Your task to perform on an android device: Show me the alarms in the clock app Image 0: 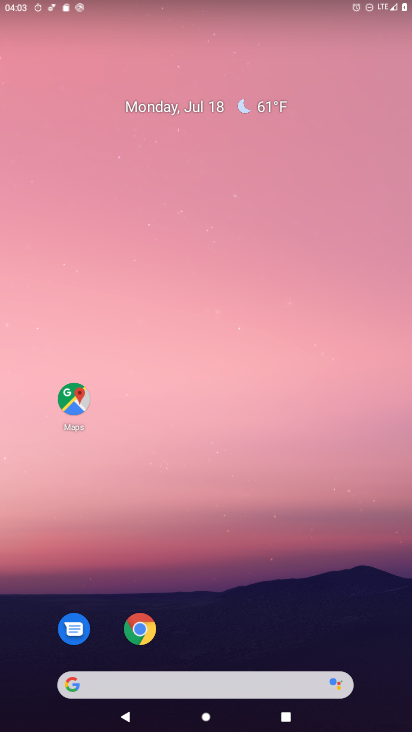
Step 0: drag from (188, 682) to (232, 152)
Your task to perform on an android device: Show me the alarms in the clock app Image 1: 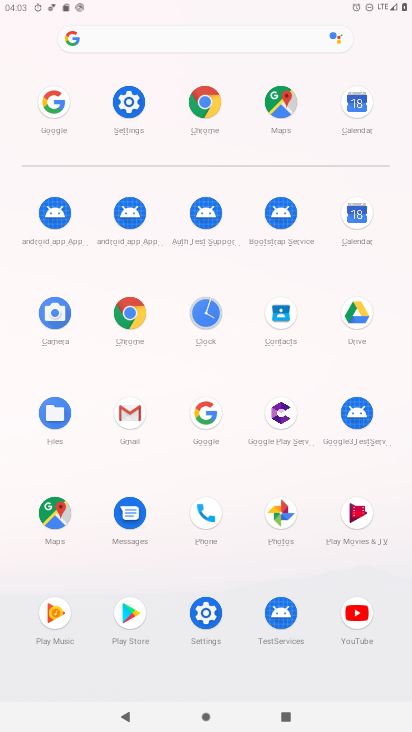
Step 1: click (207, 315)
Your task to perform on an android device: Show me the alarms in the clock app Image 2: 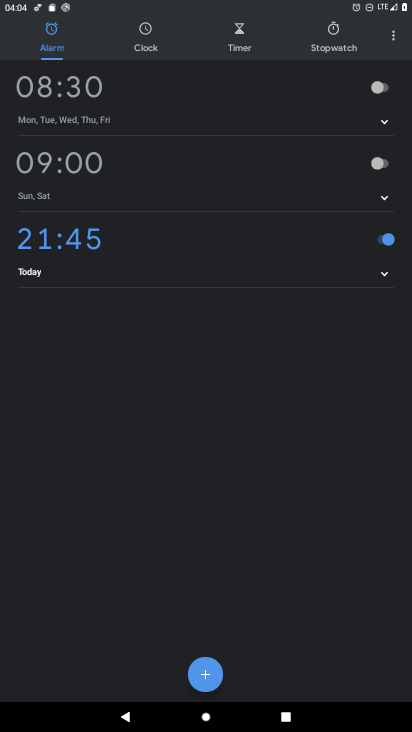
Step 2: click (206, 671)
Your task to perform on an android device: Show me the alarms in the clock app Image 3: 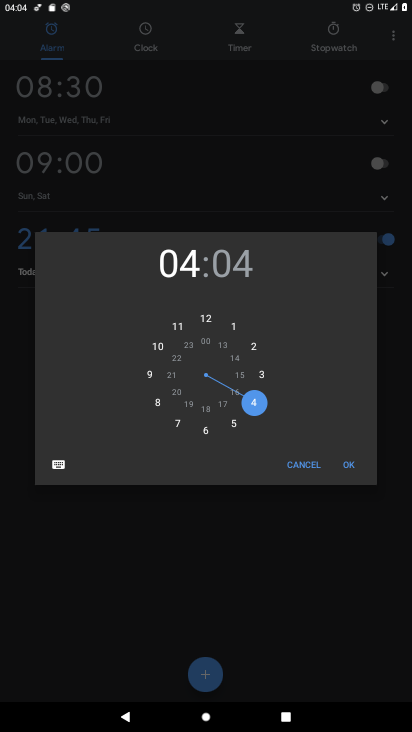
Step 3: click (183, 365)
Your task to perform on an android device: Show me the alarms in the clock app Image 4: 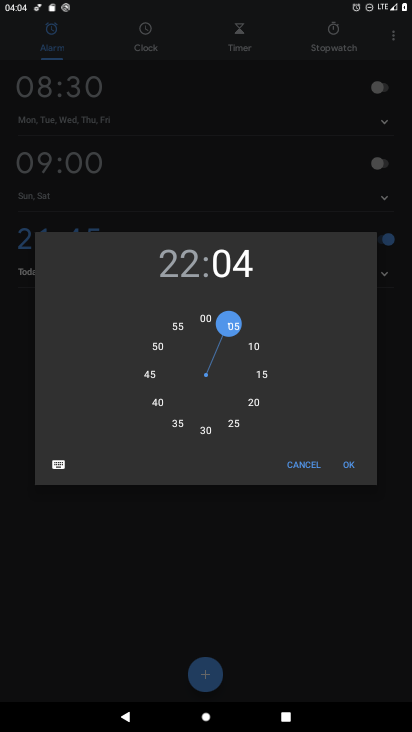
Step 4: click (160, 378)
Your task to perform on an android device: Show me the alarms in the clock app Image 5: 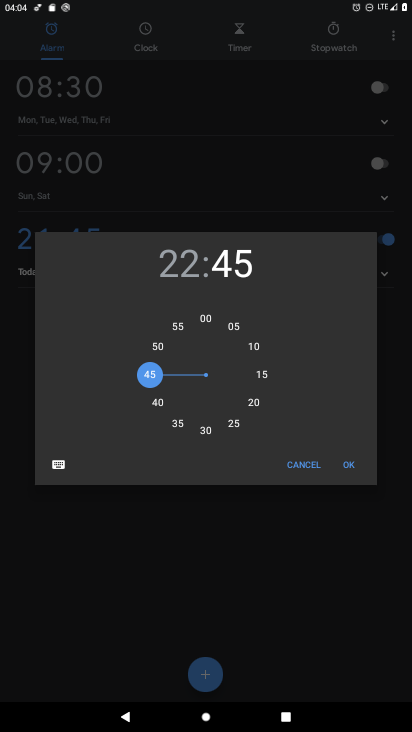
Step 5: click (348, 466)
Your task to perform on an android device: Show me the alarms in the clock app Image 6: 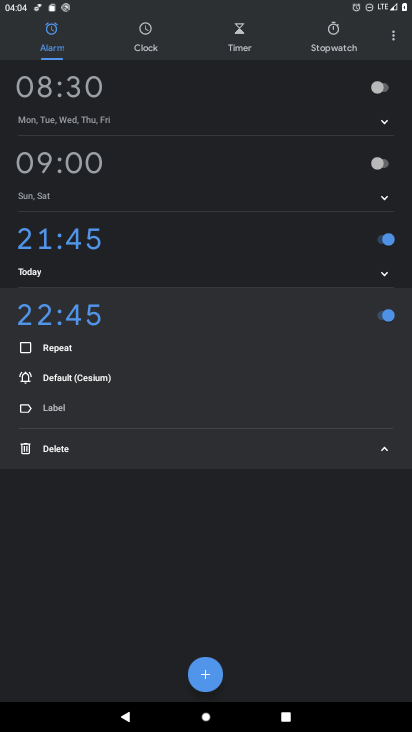
Step 6: click (391, 448)
Your task to perform on an android device: Show me the alarms in the clock app Image 7: 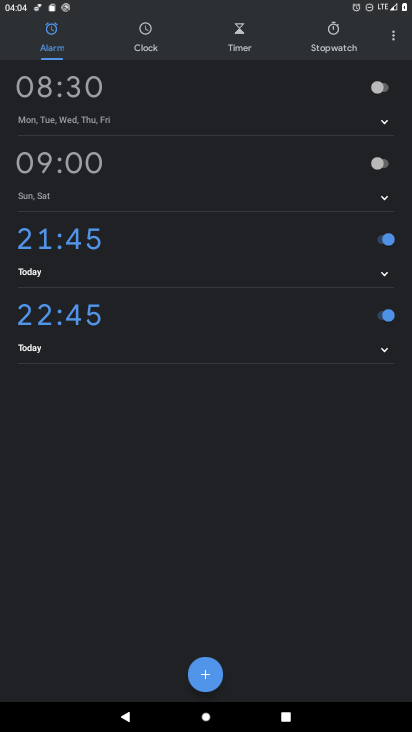
Step 7: task complete